Your task to perform on an android device: turn on data saver in the chrome app Image 0: 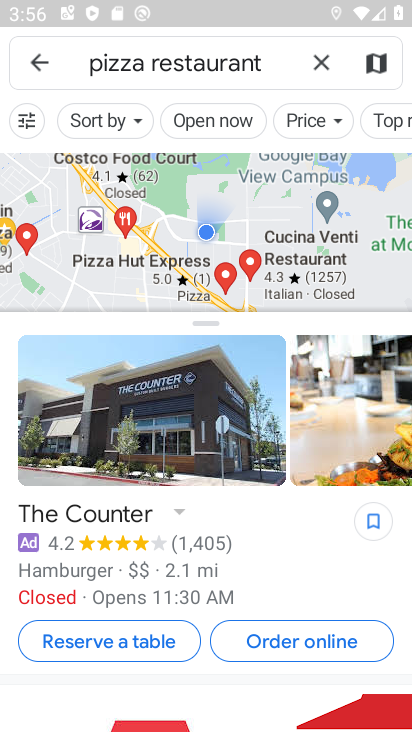
Step 0: press home button
Your task to perform on an android device: turn on data saver in the chrome app Image 1: 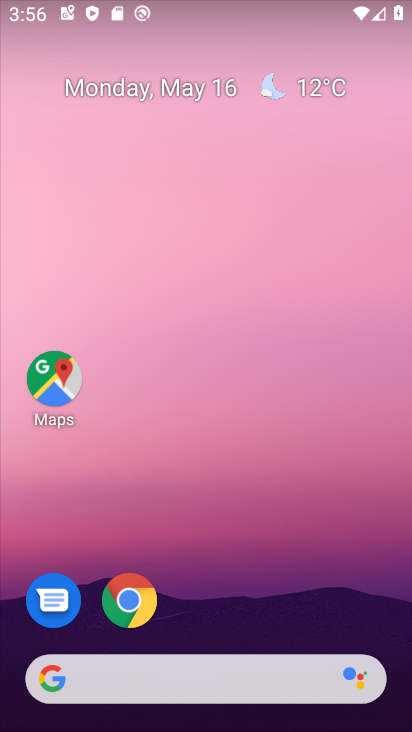
Step 1: click (145, 632)
Your task to perform on an android device: turn on data saver in the chrome app Image 2: 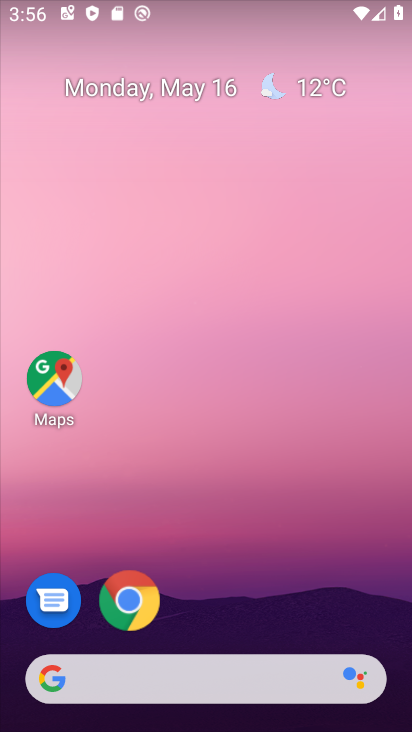
Step 2: click (128, 602)
Your task to perform on an android device: turn on data saver in the chrome app Image 3: 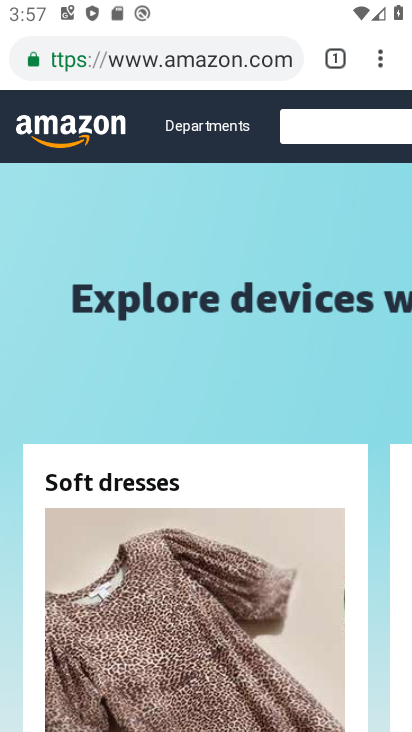
Step 3: click (376, 66)
Your task to perform on an android device: turn on data saver in the chrome app Image 4: 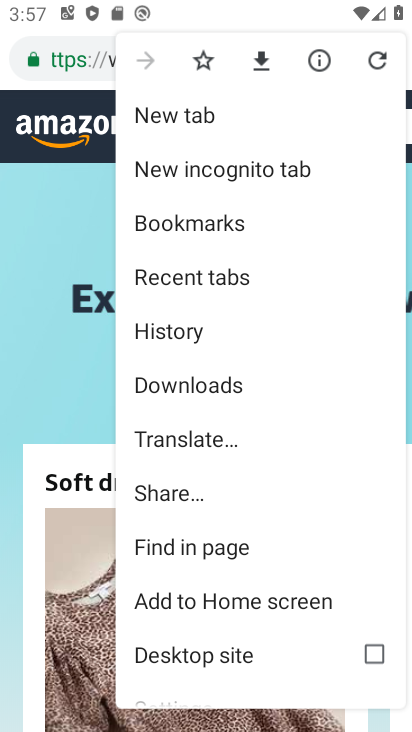
Step 4: drag from (207, 657) to (200, 328)
Your task to perform on an android device: turn on data saver in the chrome app Image 5: 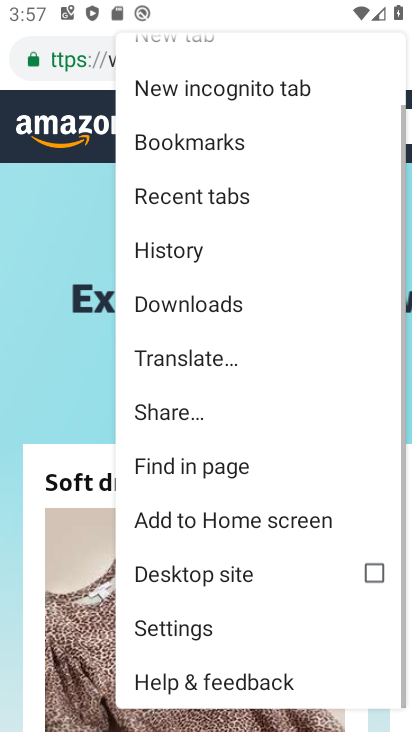
Step 5: click (182, 625)
Your task to perform on an android device: turn on data saver in the chrome app Image 6: 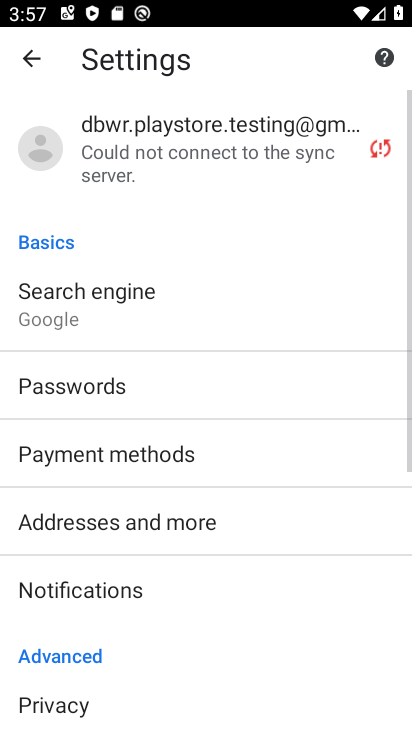
Step 6: drag from (184, 711) to (189, 327)
Your task to perform on an android device: turn on data saver in the chrome app Image 7: 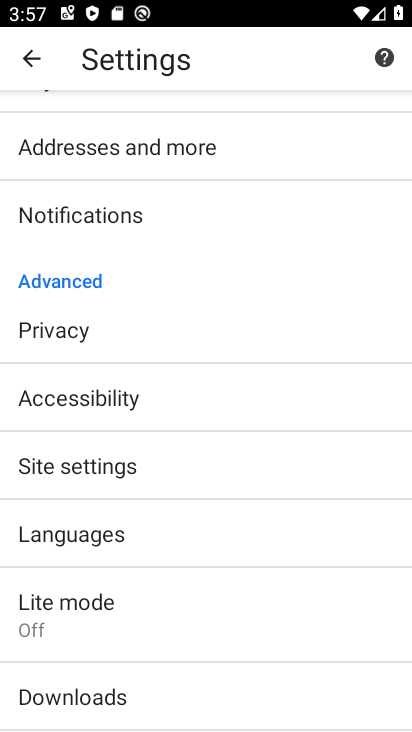
Step 7: click (52, 625)
Your task to perform on an android device: turn on data saver in the chrome app Image 8: 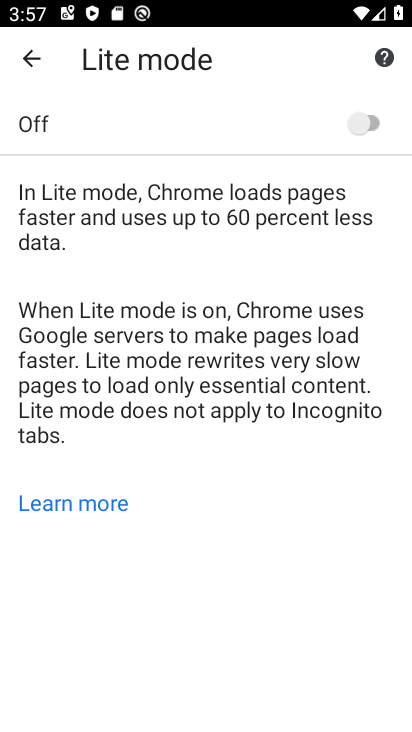
Step 8: click (363, 124)
Your task to perform on an android device: turn on data saver in the chrome app Image 9: 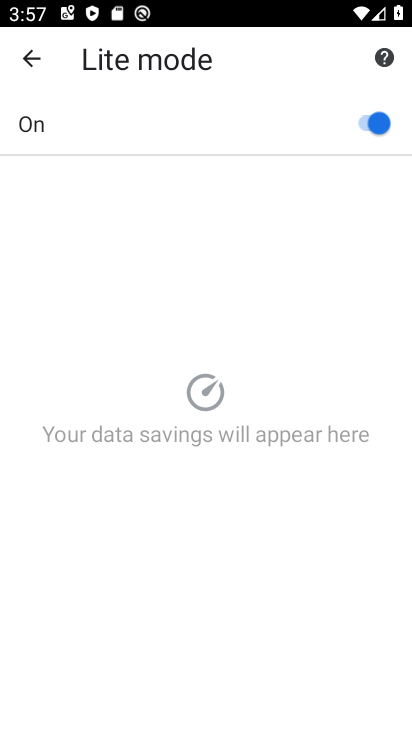
Step 9: task complete